Your task to perform on an android device: What's the weather today? Image 0: 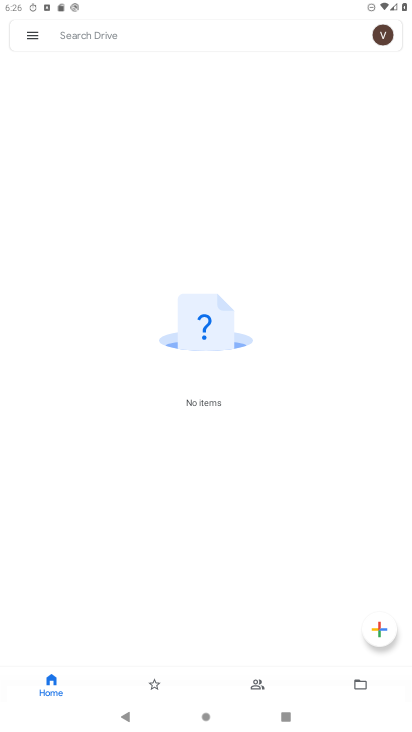
Step 0: press home button
Your task to perform on an android device: What's the weather today? Image 1: 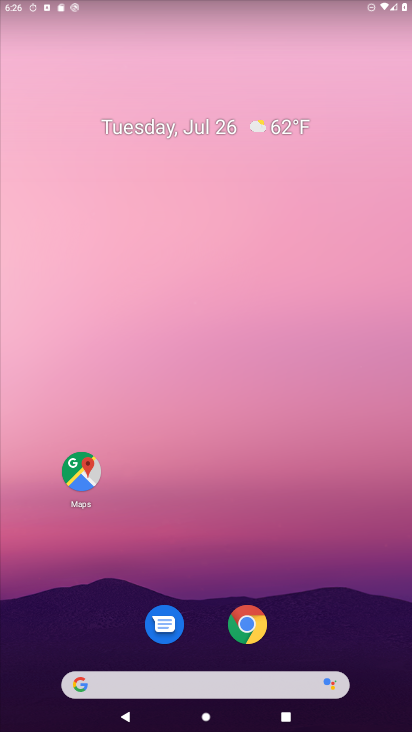
Step 1: drag from (326, 567) to (366, 60)
Your task to perform on an android device: What's the weather today? Image 2: 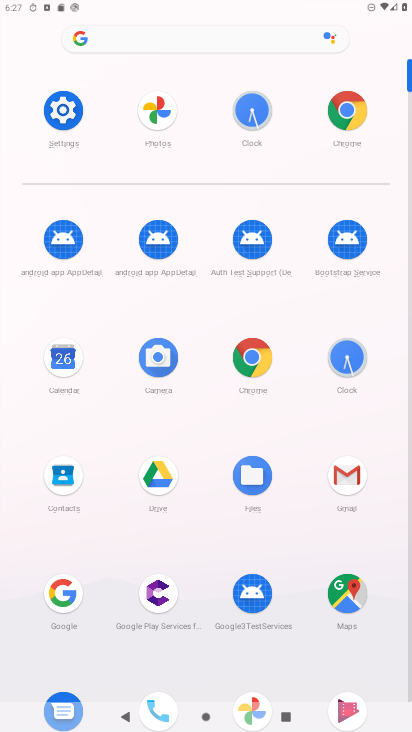
Step 2: click (267, 348)
Your task to perform on an android device: What's the weather today? Image 3: 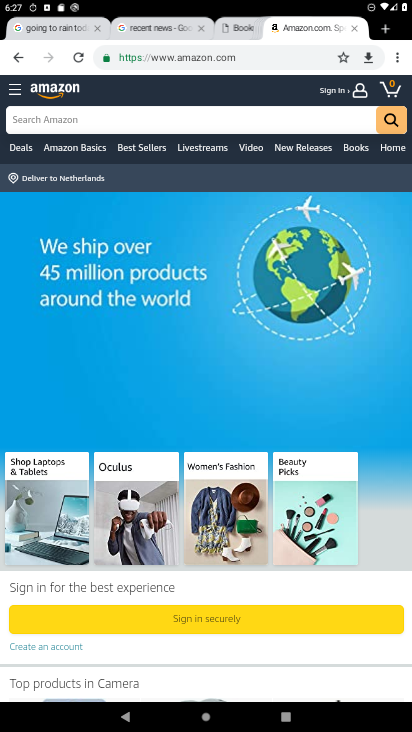
Step 3: click (136, 54)
Your task to perform on an android device: What's the weather today? Image 4: 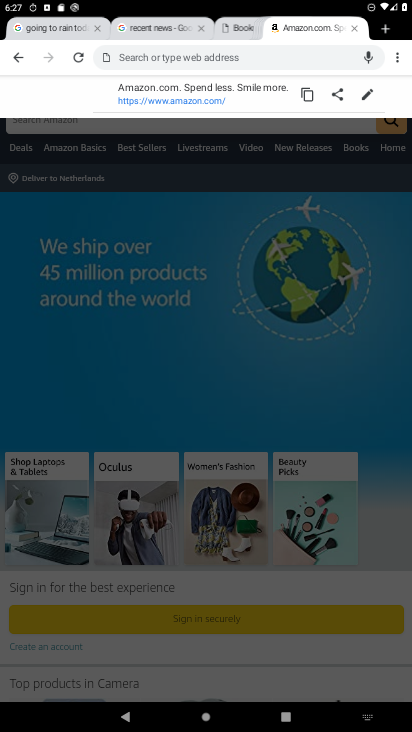
Step 4: type "weather today"
Your task to perform on an android device: What's the weather today? Image 5: 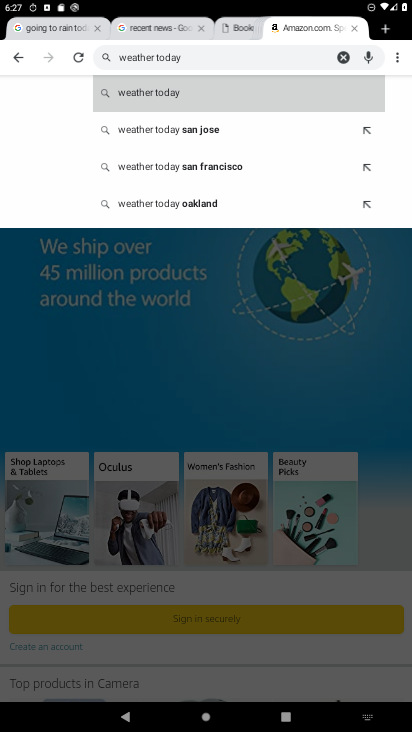
Step 5: click (246, 89)
Your task to perform on an android device: What's the weather today? Image 6: 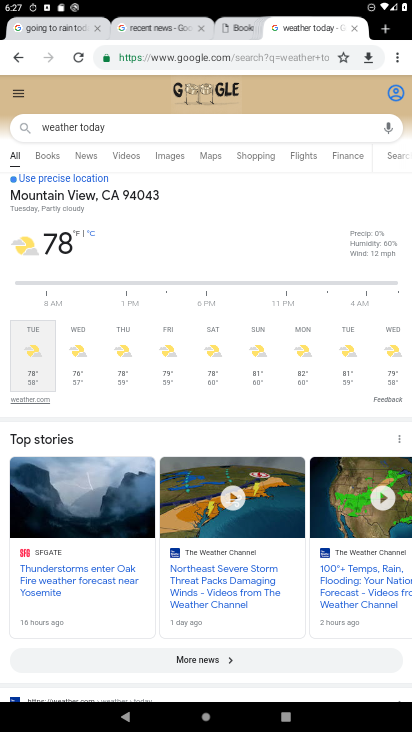
Step 6: task complete